Your task to perform on an android device: star an email in the gmail app Image 0: 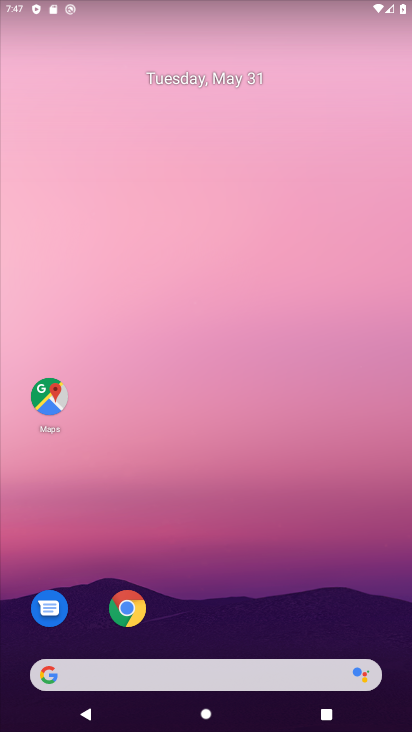
Step 0: drag from (225, 623) to (362, 74)
Your task to perform on an android device: star an email in the gmail app Image 1: 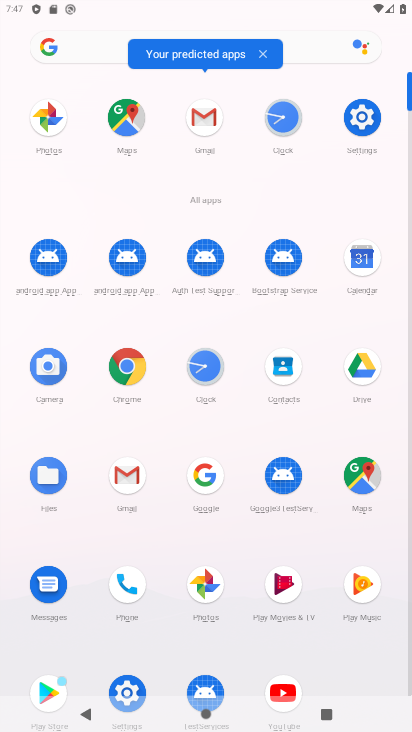
Step 1: click (142, 474)
Your task to perform on an android device: star an email in the gmail app Image 2: 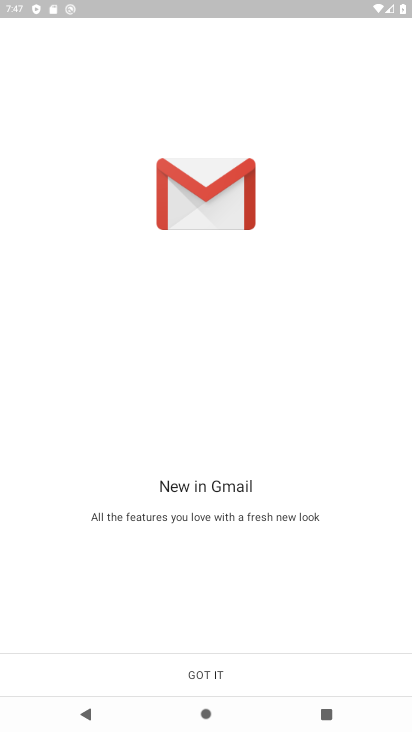
Step 2: click (173, 678)
Your task to perform on an android device: star an email in the gmail app Image 3: 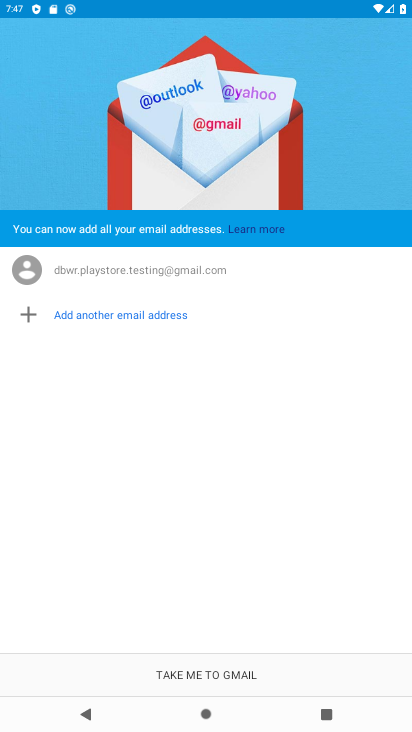
Step 3: click (206, 663)
Your task to perform on an android device: star an email in the gmail app Image 4: 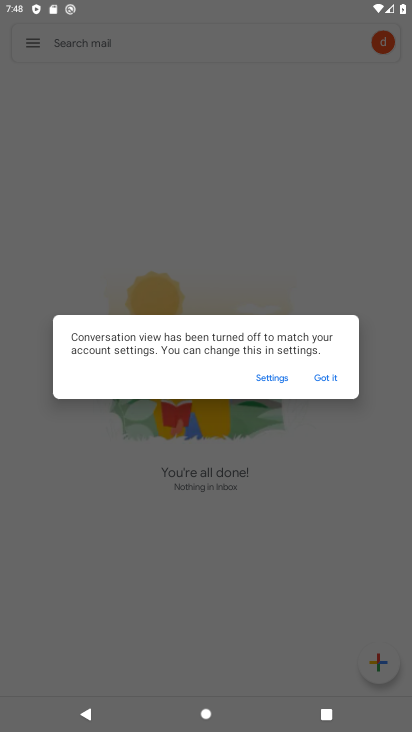
Step 4: click (315, 371)
Your task to perform on an android device: star an email in the gmail app Image 5: 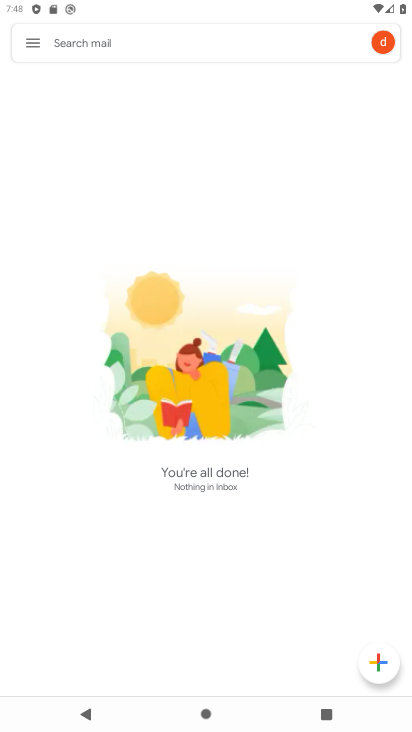
Step 5: task complete